Your task to perform on an android device: change the clock display to show seconds Image 0: 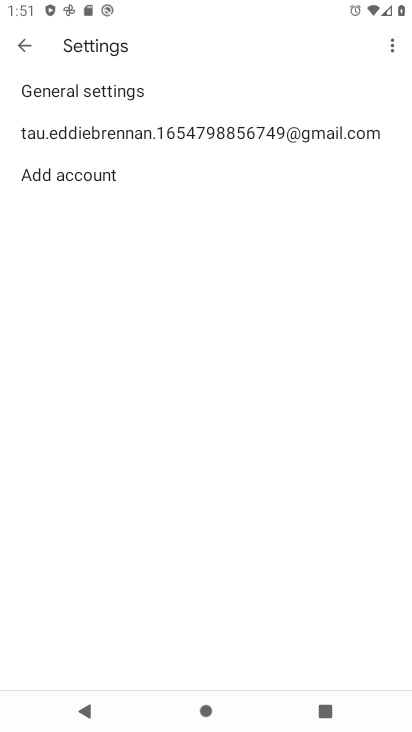
Step 0: press home button
Your task to perform on an android device: change the clock display to show seconds Image 1: 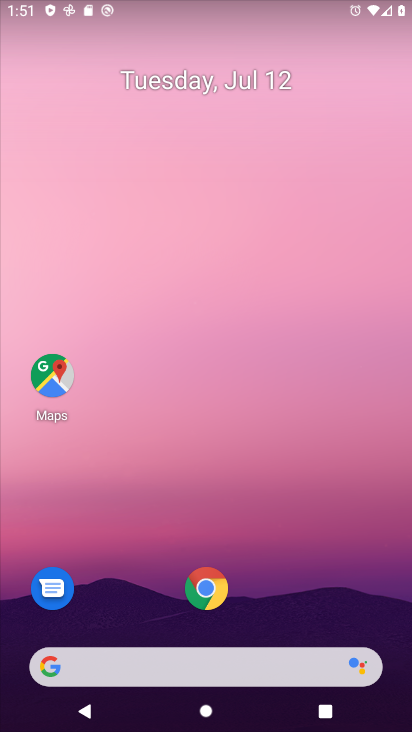
Step 1: drag from (213, 666) to (391, 19)
Your task to perform on an android device: change the clock display to show seconds Image 2: 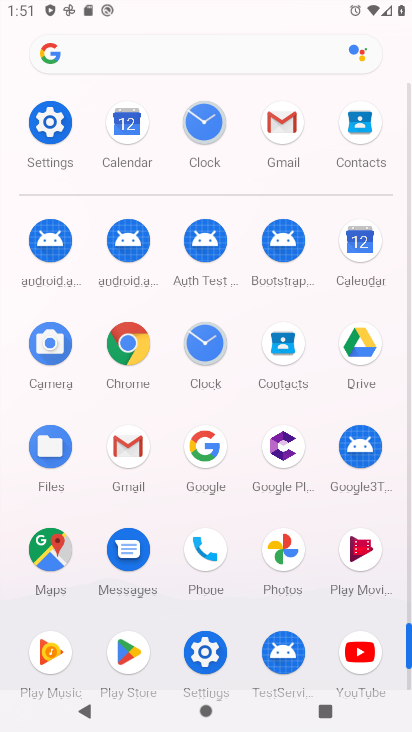
Step 2: click (202, 341)
Your task to perform on an android device: change the clock display to show seconds Image 3: 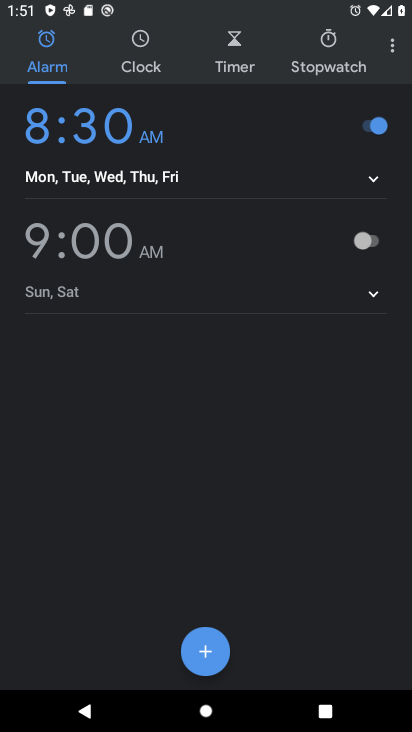
Step 3: click (396, 39)
Your task to perform on an android device: change the clock display to show seconds Image 4: 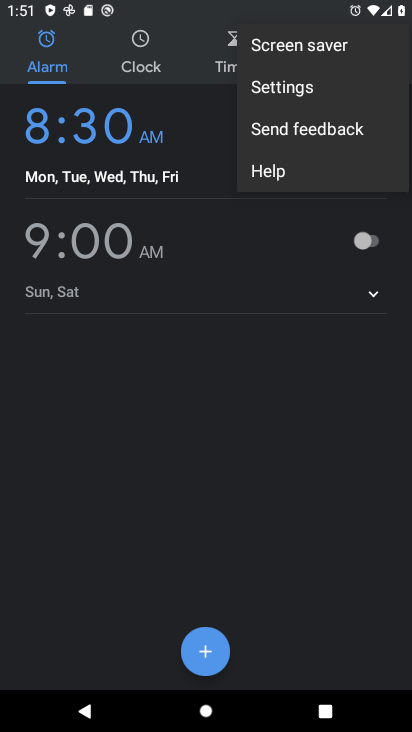
Step 4: click (309, 90)
Your task to perform on an android device: change the clock display to show seconds Image 5: 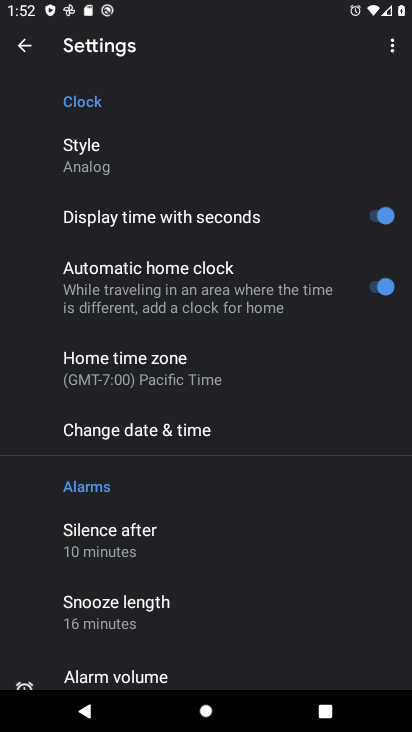
Step 5: task complete